Your task to perform on an android device: Open Google Maps and go to "Timeline" Image 0: 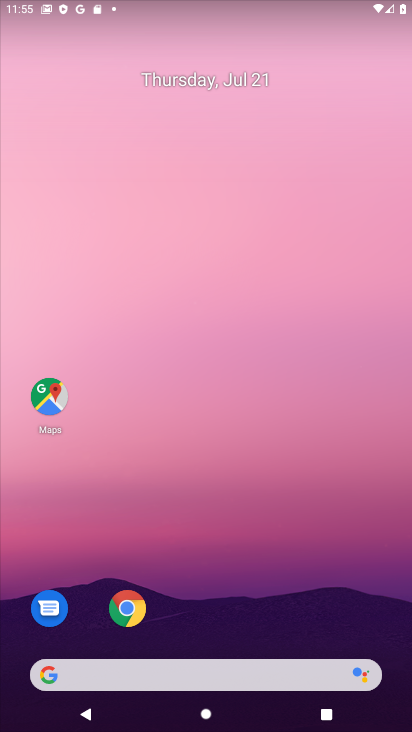
Step 0: press home button
Your task to perform on an android device: Open Google Maps and go to "Timeline" Image 1: 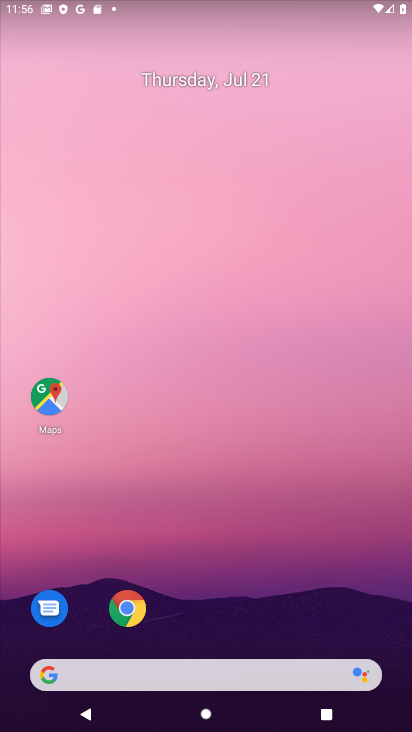
Step 1: drag from (207, 624) to (89, 2)
Your task to perform on an android device: Open Google Maps and go to "Timeline" Image 2: 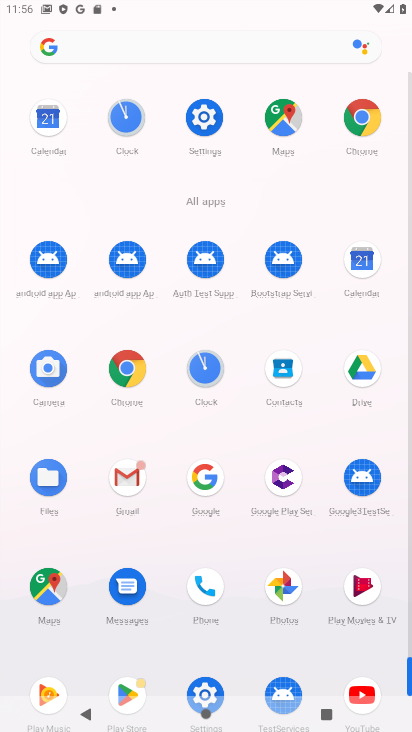
Step 2: click (284, 122)
Your task to perform on an android device: Open Google Maps and go to "Timeline" Image 3: 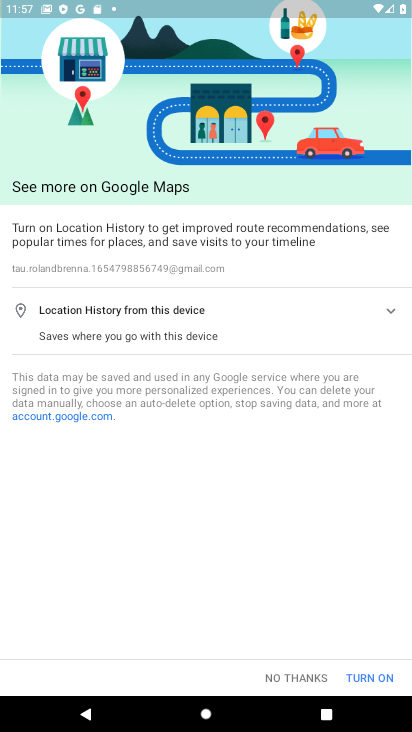
Step 3: click (365, 678)
Your task to perform on an android device: Open Google Maps and go to "Timeline" Image 4: 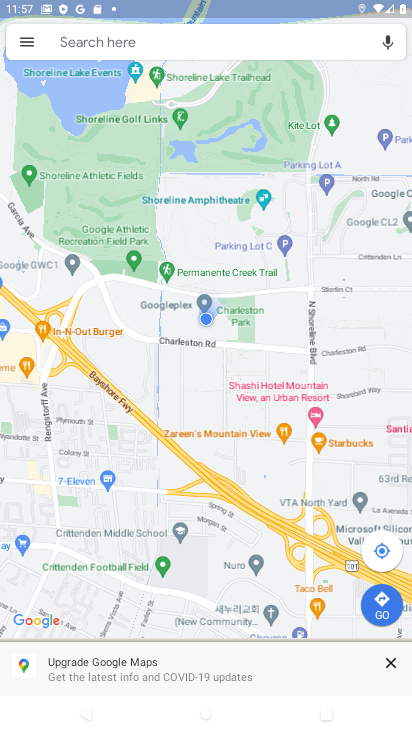
Step 4: click (17, 28)
Your task to perform on an android device: Open Google Maps and go to "Timeline" Image 5: 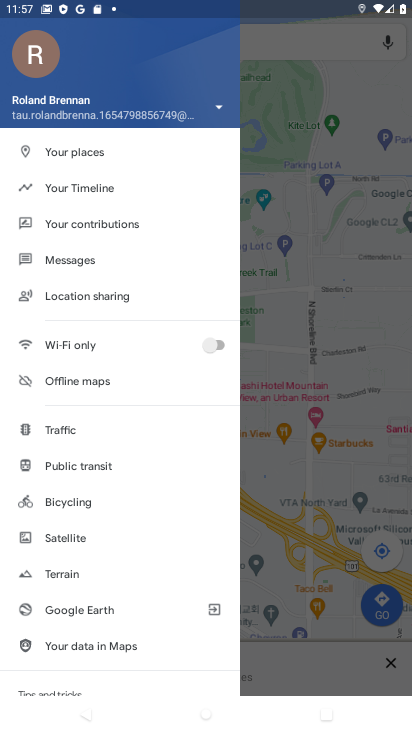
Step 5: click (117, 182)
Your task to perform on an android device: Open Google Maps and go to "Timeline" Image 6: 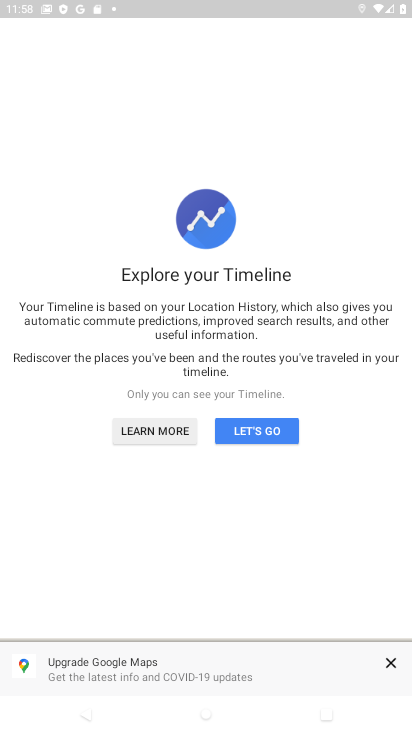
Step 6: click (268, 434)
Your task to perform on an android device: Open Google Maps and go to "Timeline" Image 7: 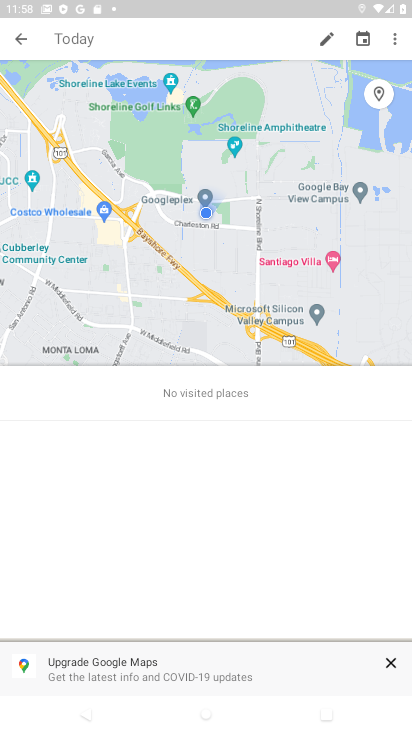
Step 7: task complete